Your task to perform on an android device: clear history in the chrome app Image 0: 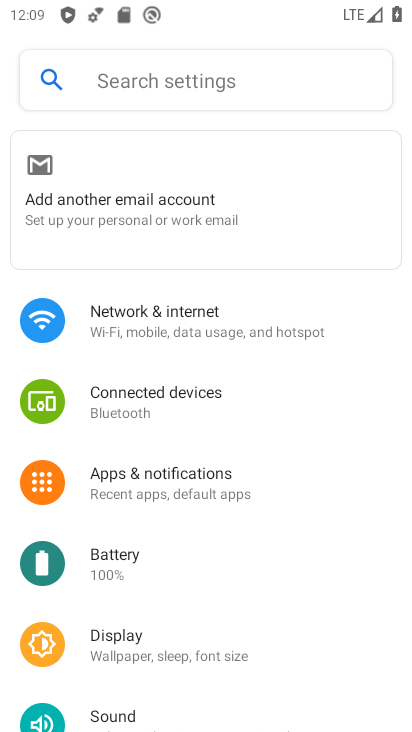
Step 0: drag from (193, 648) to (232, 228)
Your task to perform on an android device: clear history in the chrome app Image 1: 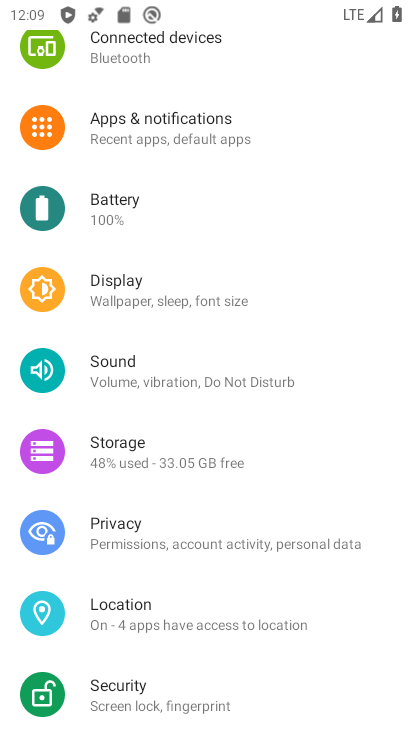
Step 1: press home button
Your task to perform on an android device: clear history in the chrome app Image 2: 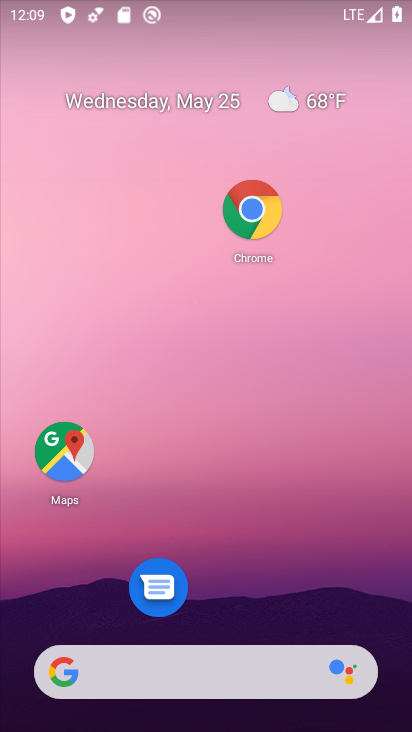
Step 2: click (252, 209)
Your task to perform on an android device: clear history in the chrome app Image 3: 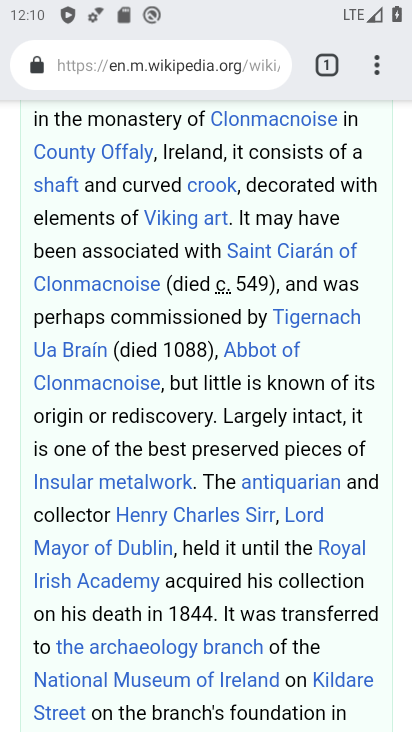
Step 3: click (385, 60)
Your task to perform on an android device: clear history in the chrome app Image 4: 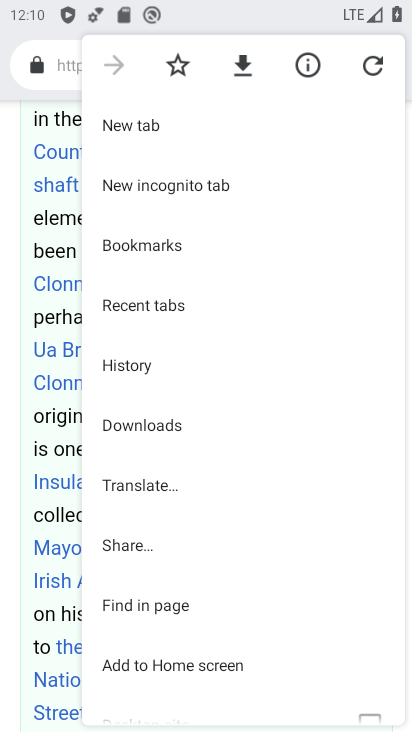
Step 4: click (157, 362)
Your task to perform on an android device: clear history in the chrome app Image 5: 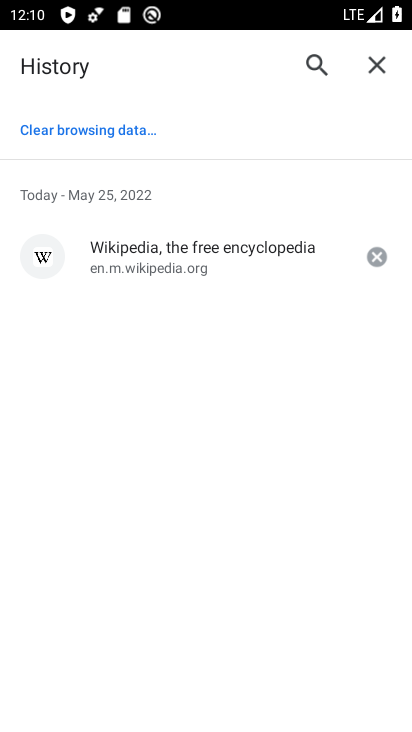
Step 5: click (90, 117)
Your task to perform on an android device: clear history in the chrome app Image 6: 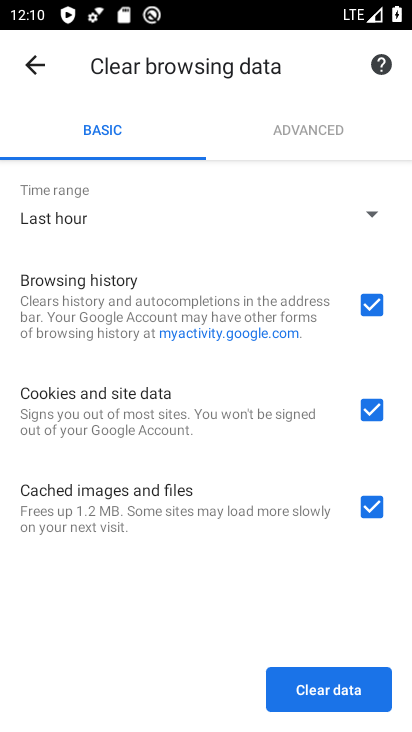
Step 6: click (365, 213)
Your task to perform on an android device: clear history in the chrome app Image 7: 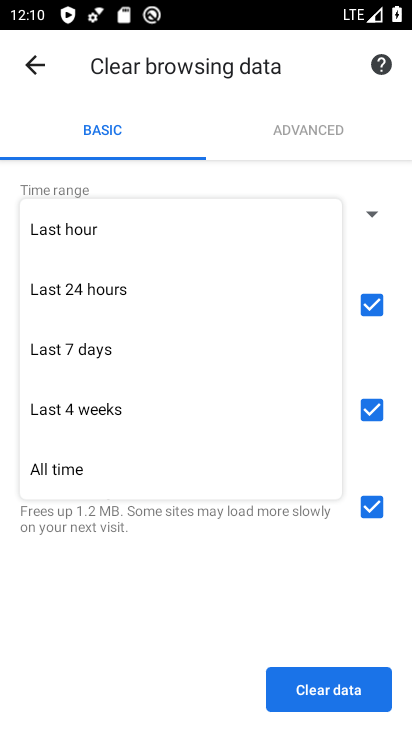
Step 7: click (91, 463)
Your task to perform on an android device: clear history in the chrome app Image 8: 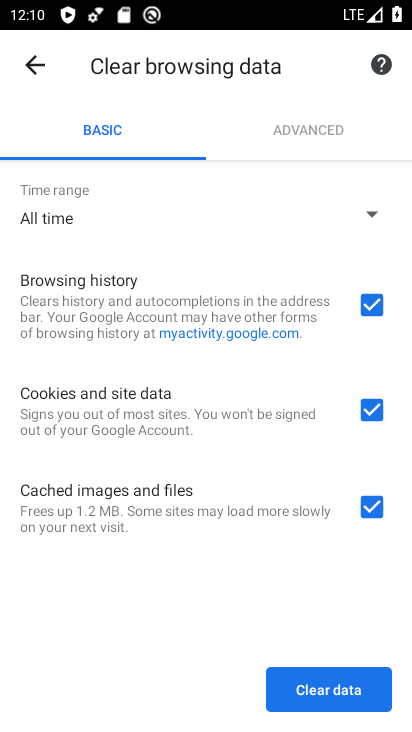
Step 8: click (351, 697)
Your task to perform on an android device: clear history in the chrome app Image 9: 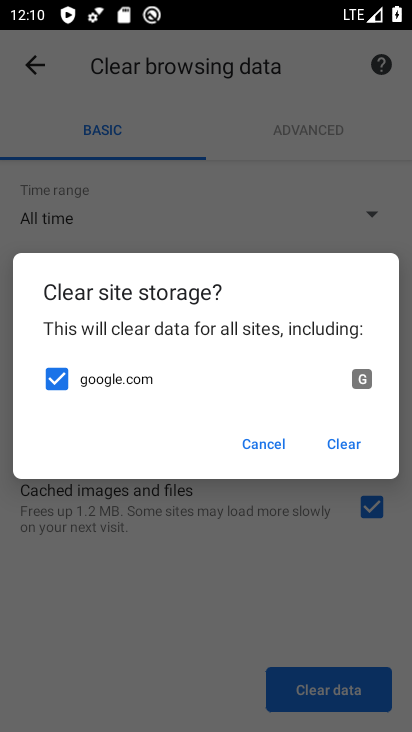
Step 9: click (343, 439)
Your task to perform on an android device: clear history in the chrome app Image 10: 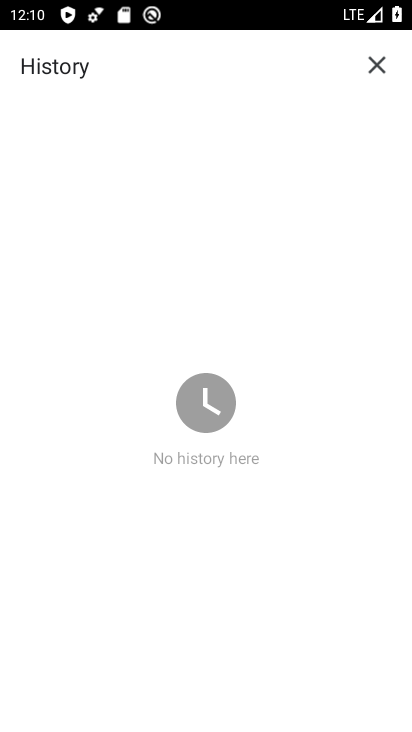
Step 10: task complete